Your task to perform on an android device: Set the phone to "Do not disturb". Image 0: 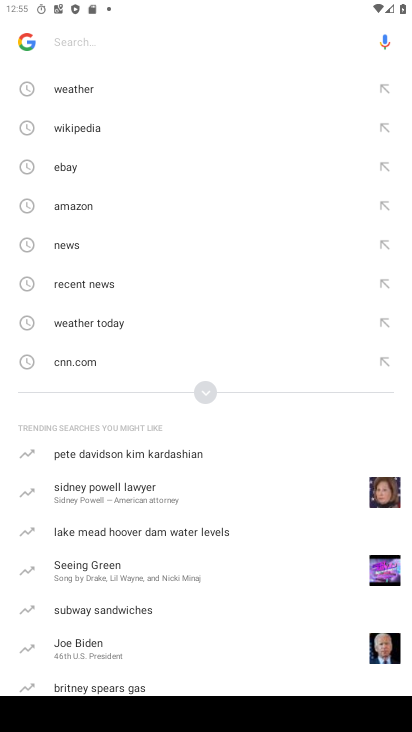
Step 0: press home button
Your task to perform on an android device: Set the phone to "Do not disturb". Image 1: 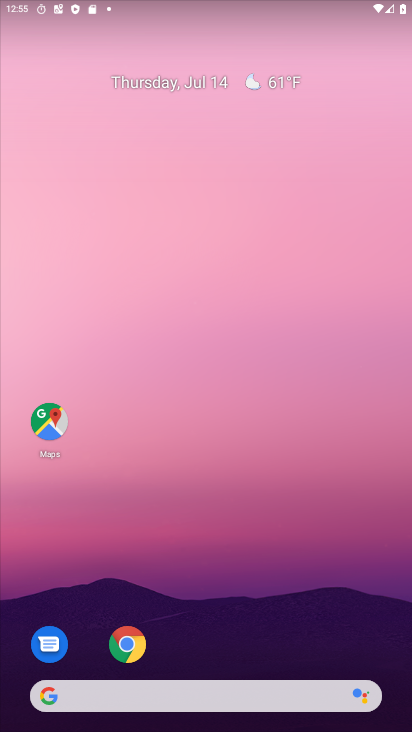
Step 1: drag from (244, 606) to (269, 88)
Your task to perform on an android device: Set the phone to "Do not disturb". Image 2: 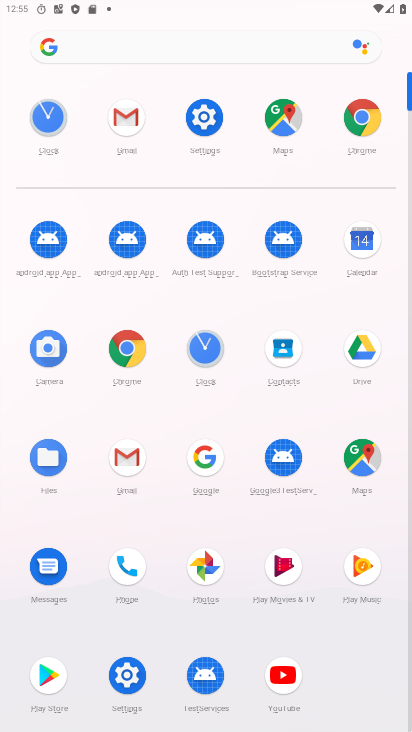
Step 2: click (200, 121)
Your task to perform on an android device: Set the phone to "Do not disturb". Image 3: 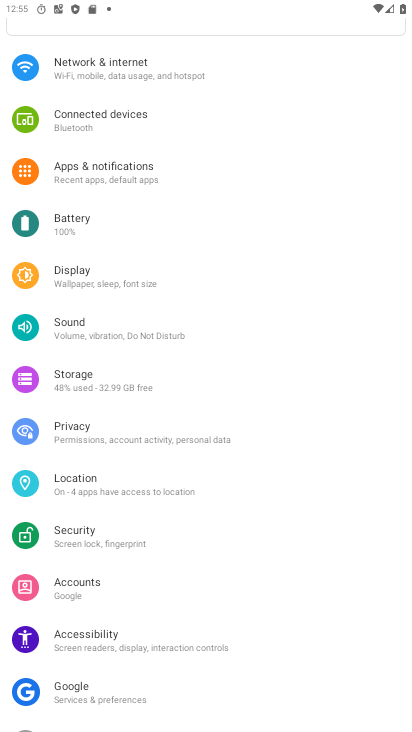
Step 3: click (141, 348)
Your task to perform on an android device: Set the phone to "Do not disturb". Image 4: 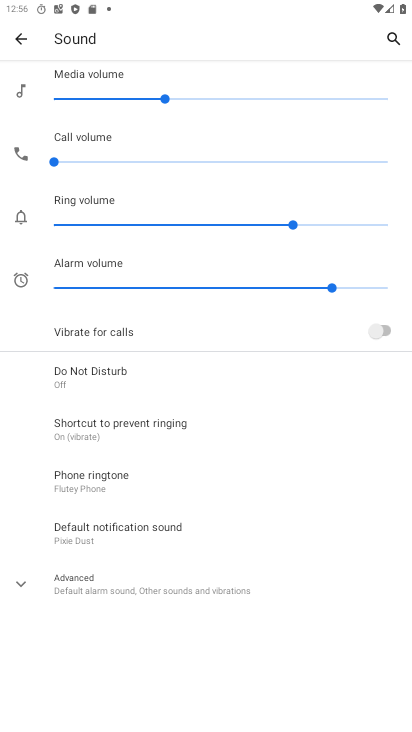
Step 4: click (117, 376)
Your task to perform on an android device: Set the phone to "Do not disturb". Image 5: 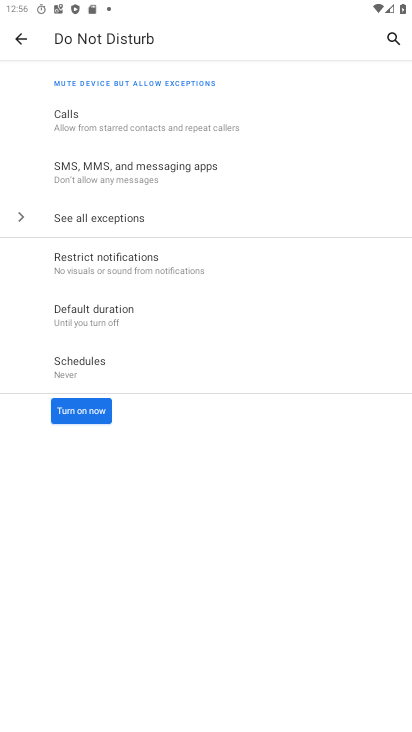
Step 5: click (97, 404)
Your task to perform on an android device: Set the phone to "Do not disturb". Image 6: 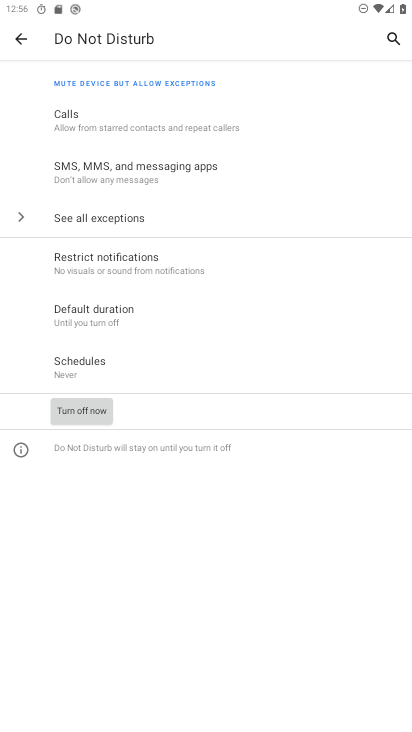
Step 6: task complete